Your task to perform on an android device: Go to Yahoo.com Image 0: 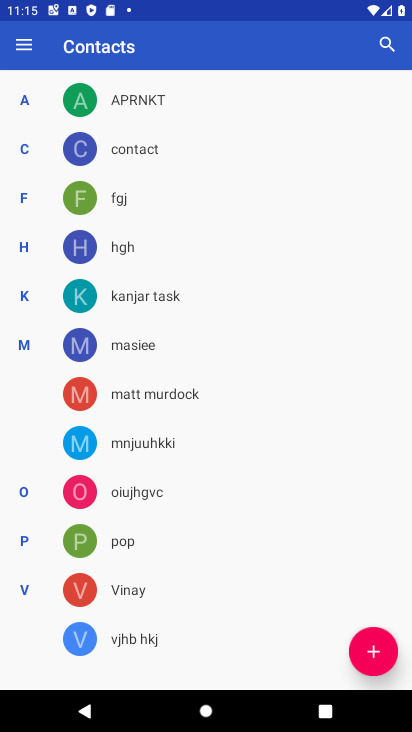
Step 0: press home button
Your task to perform on an android device: Go to Yahoo.com Image 1: 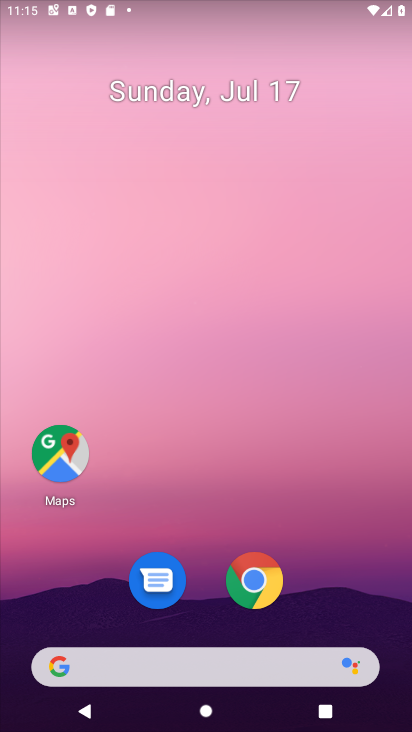
Step 1: drag from (241, 655) to (234, 209)
Your task to perform on an android device: Go to Yahoo.com Image 2: 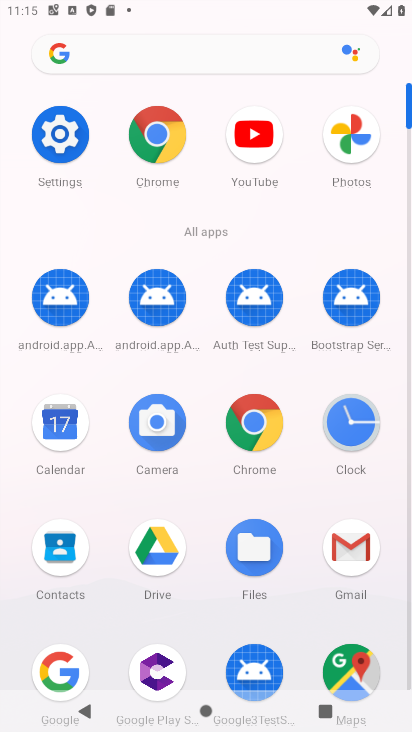
Step 2: click (267, 436)
Your task to perform on an android device: Go to Yahoo.com Image 3: 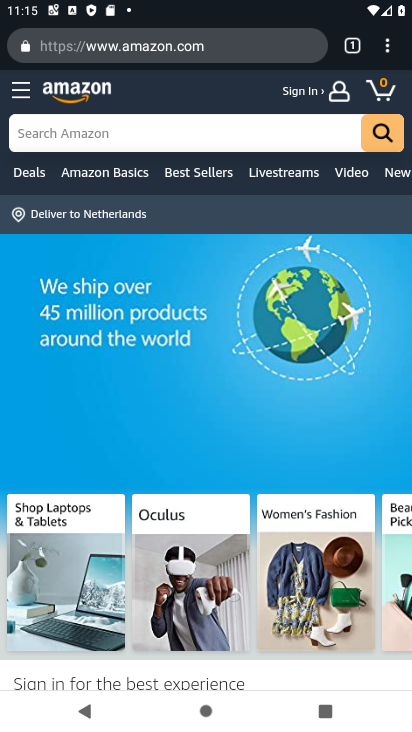
Step 3: click (220, 46)
Your task to perform on an android device: Go to Yahoo.com Image 4: 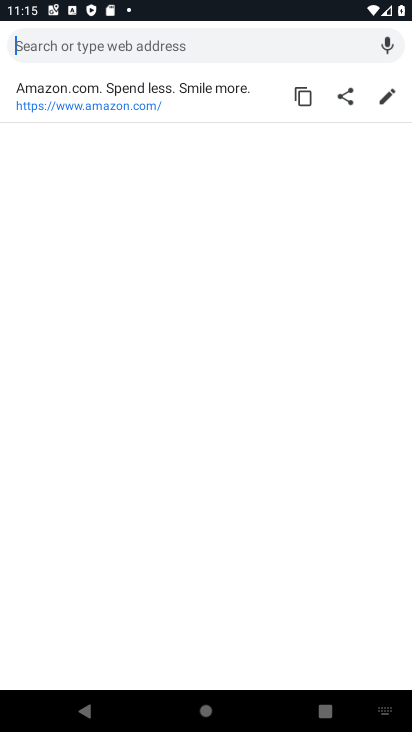
Step 4: type "yahoo"
Your task to perform on an android device: Go to Yahoo.com Image 5: 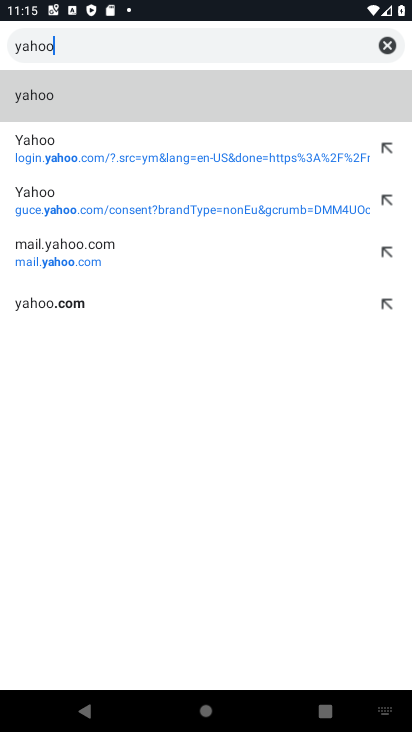
Step 5: click (196, 265)
Your task to perform on an android device: Go to Yahoo.com Image 6: 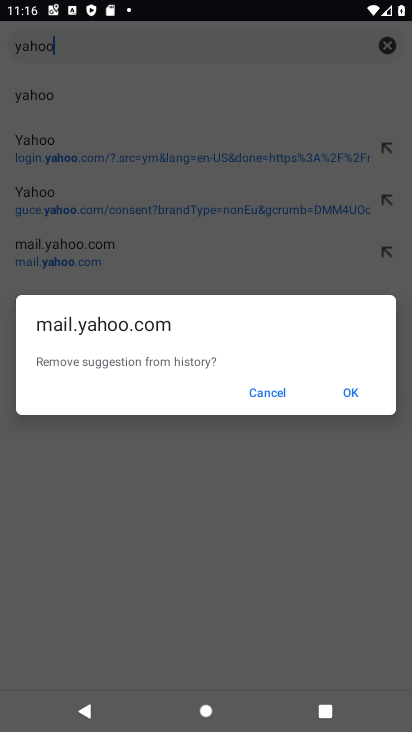
Step 6: click (358, 398)
Your task to perform on an android device: Go to Yahoo.com Image 7: 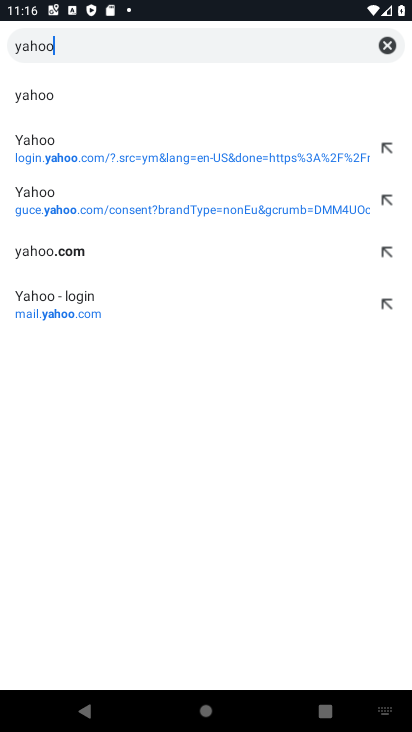
Step 7: click (163, 319)
Your task to perform on an android device: Go to Yahoo.com Image 8: 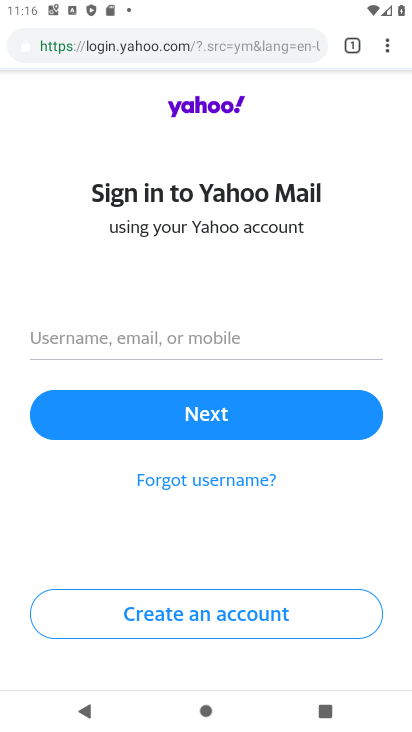
Step 8: task complete